Your task to perform on an android device: open app "Google Maps" Image 0: 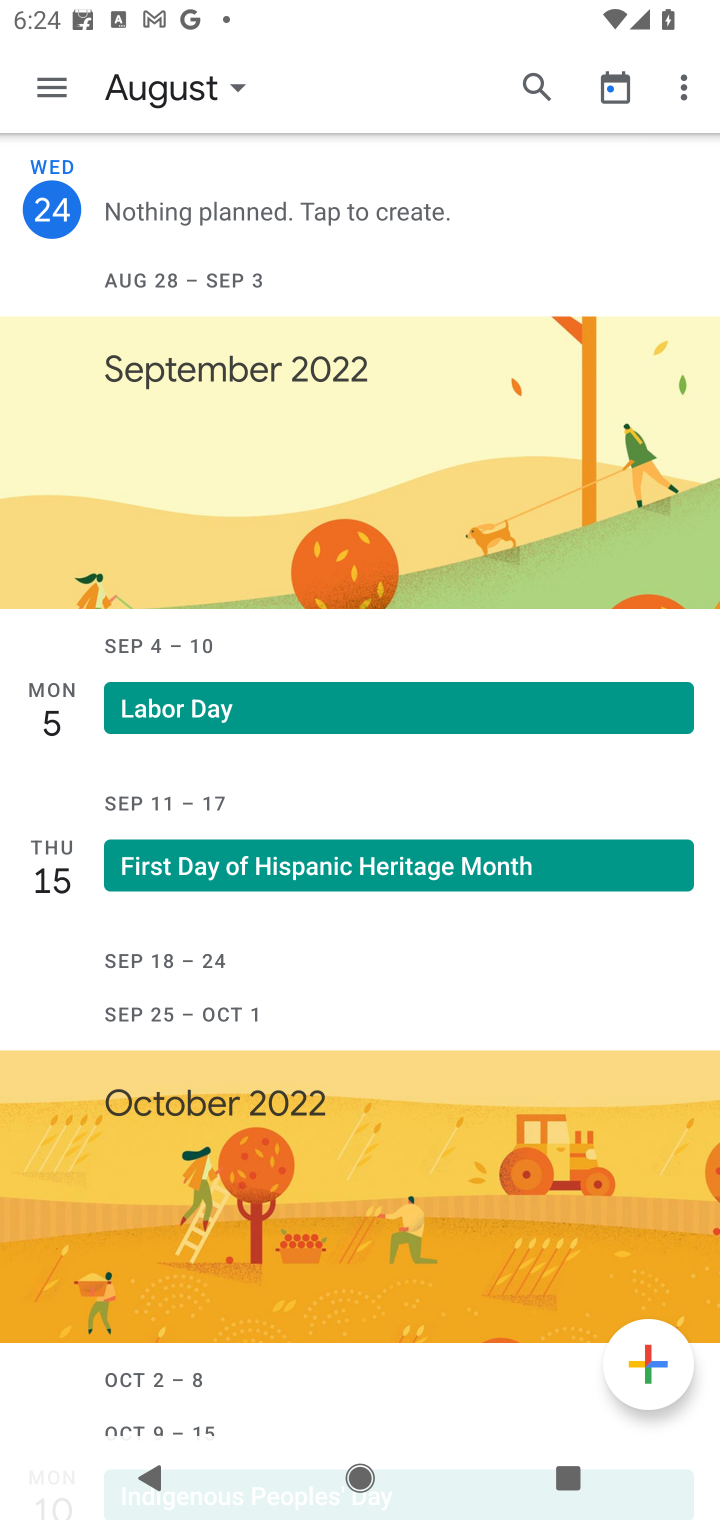
Step 0: press home button
Your task to perform on an android device: open app "Google Maps" Image 1: 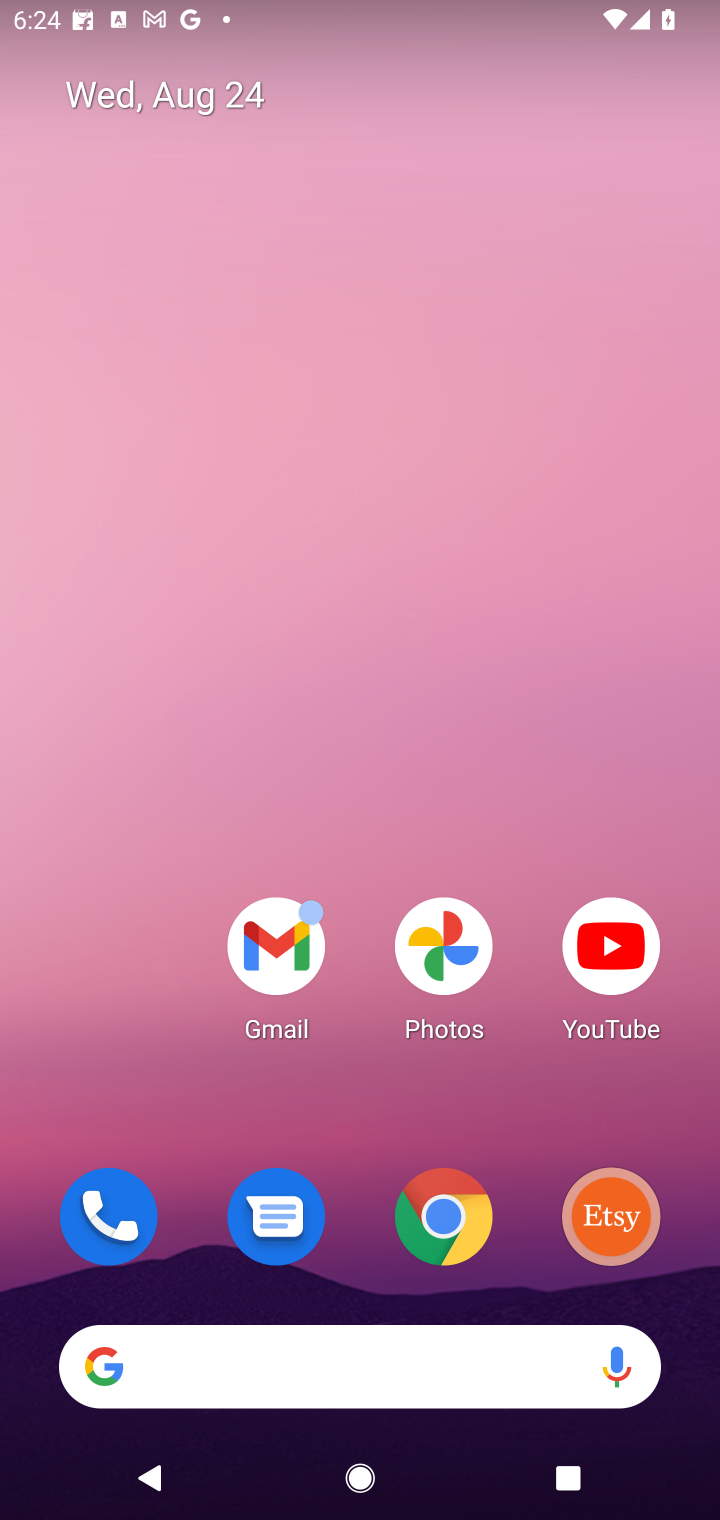
Step 1: drag from (378, 1100) to (406, 312)
Your task to perform on an android device: open app "Google Maps" Image 2: 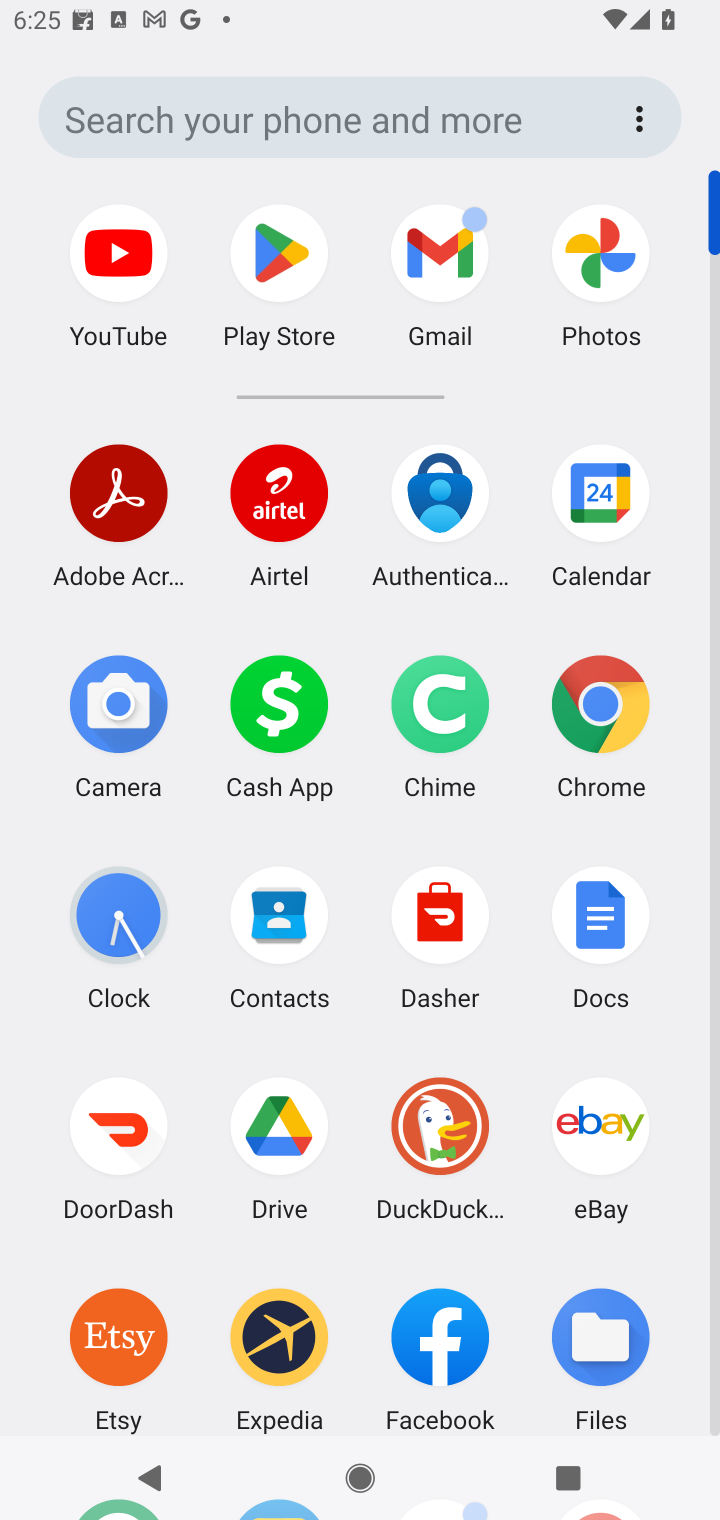
Step 2: click (299, 253)
Your task to perform on an android device: open app "Google Maps" Image 3: 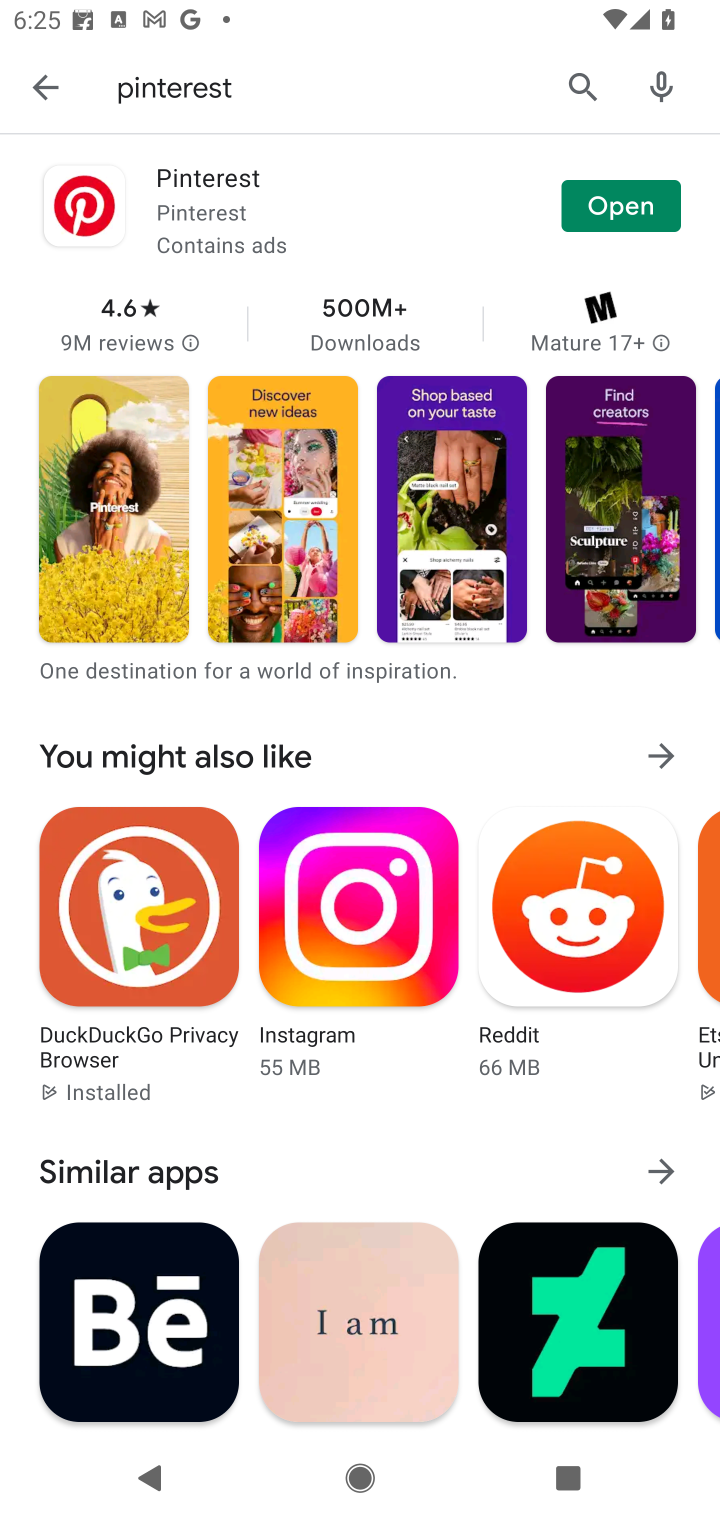
Step 3: click (563, 74)
Your task to perform on an android device: open app "Google Maps" Image 4: 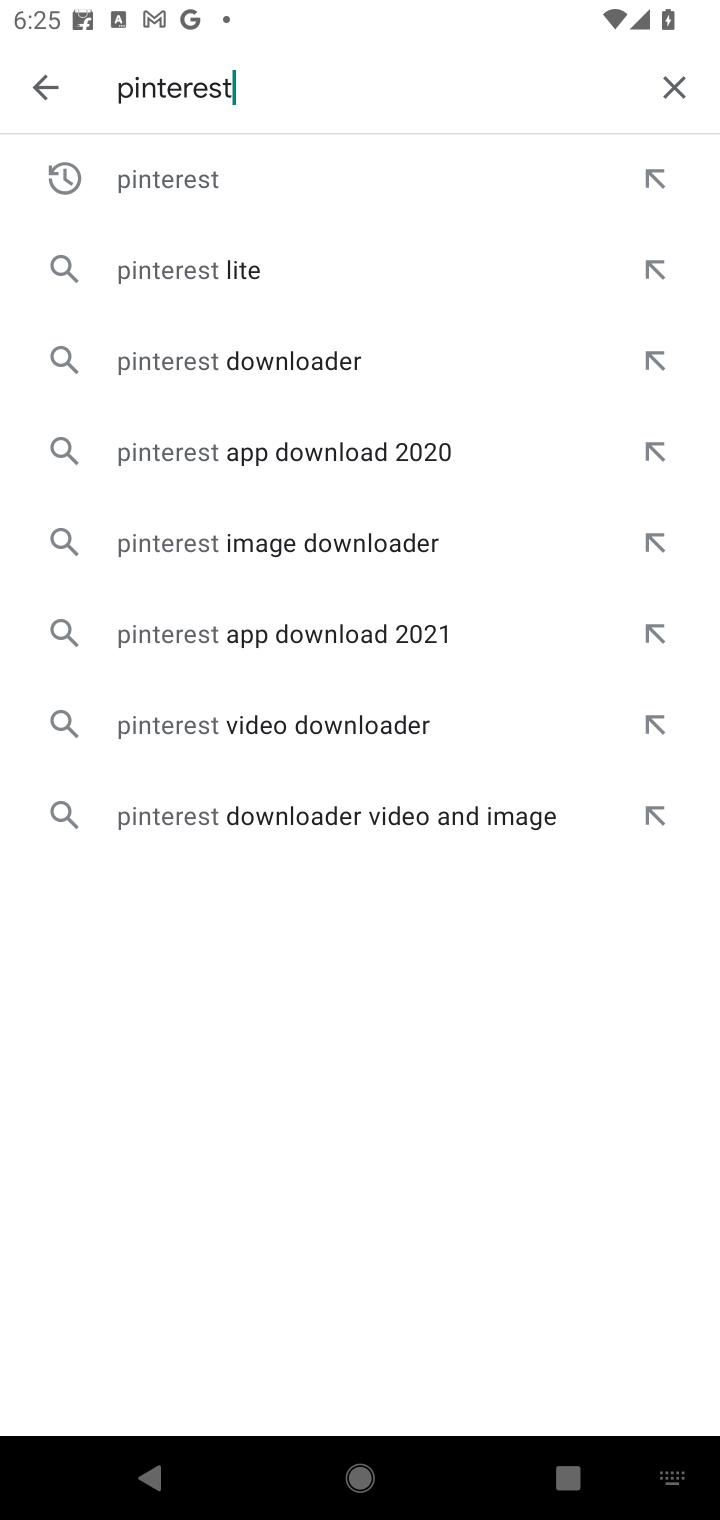
Step 4: click (663, 85)
Your task to perform on an android device: open app "Google Maps" Image 5: 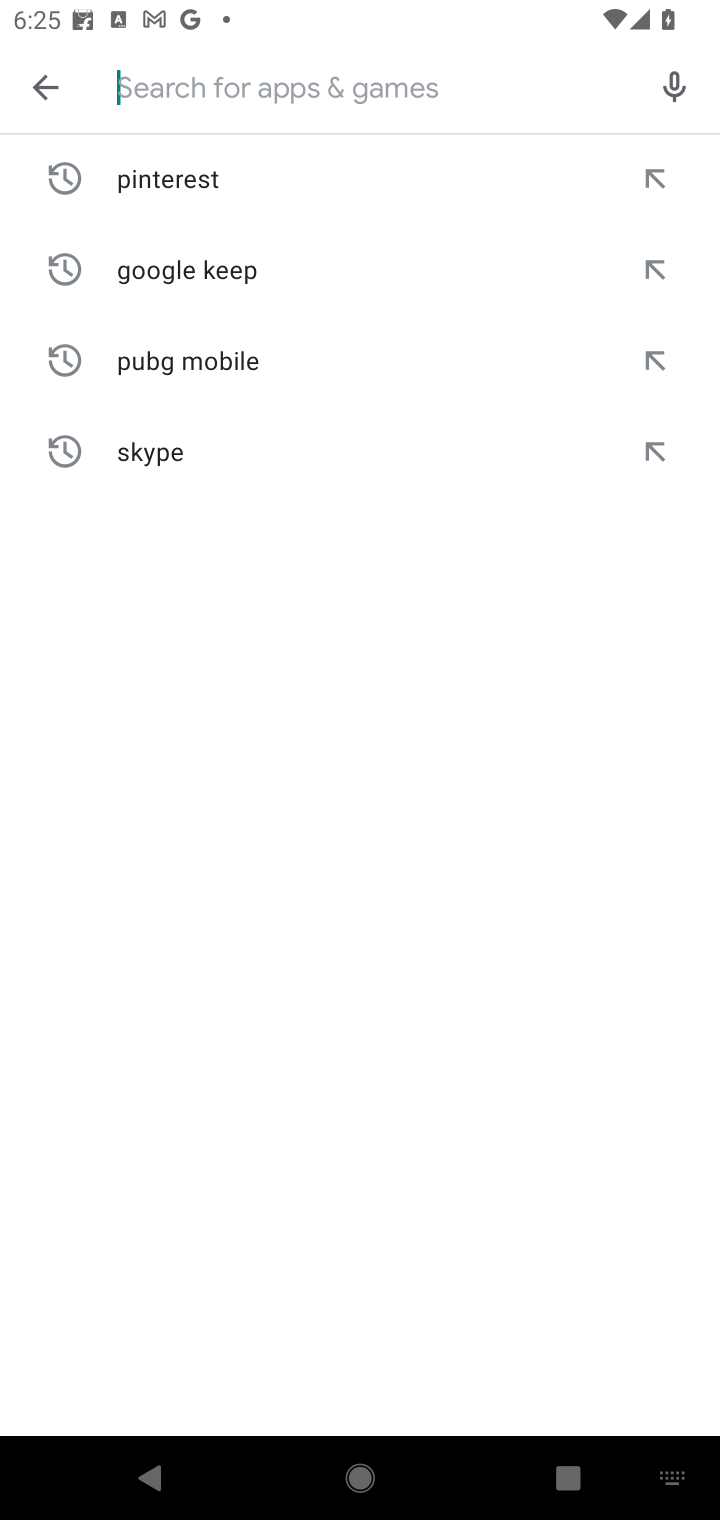
Step 5: type "Google Maps"
Your task to perform on an android device: open app "Google Maps" Image 6: 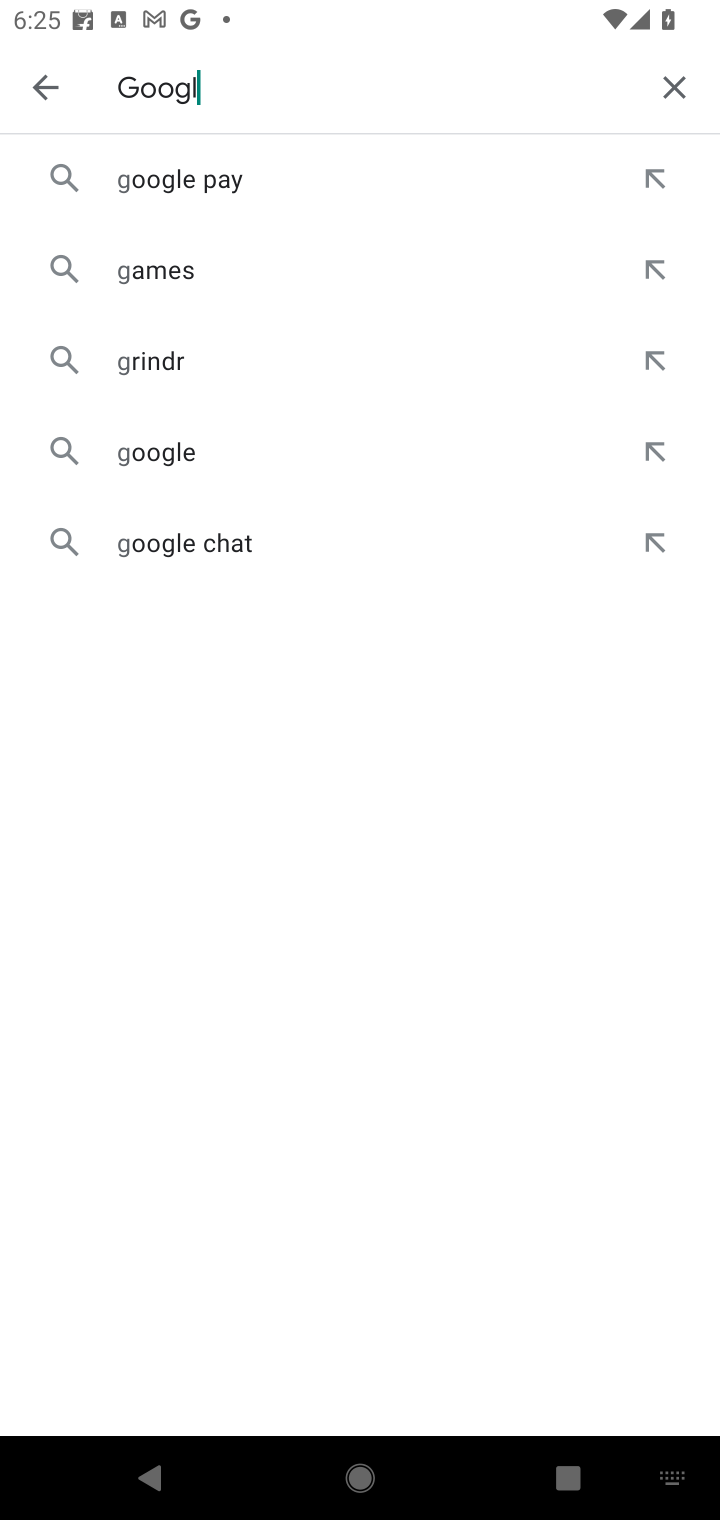
Step 6: type ""
Your task to perform on an android device: open app "Google Maps" Image 7: 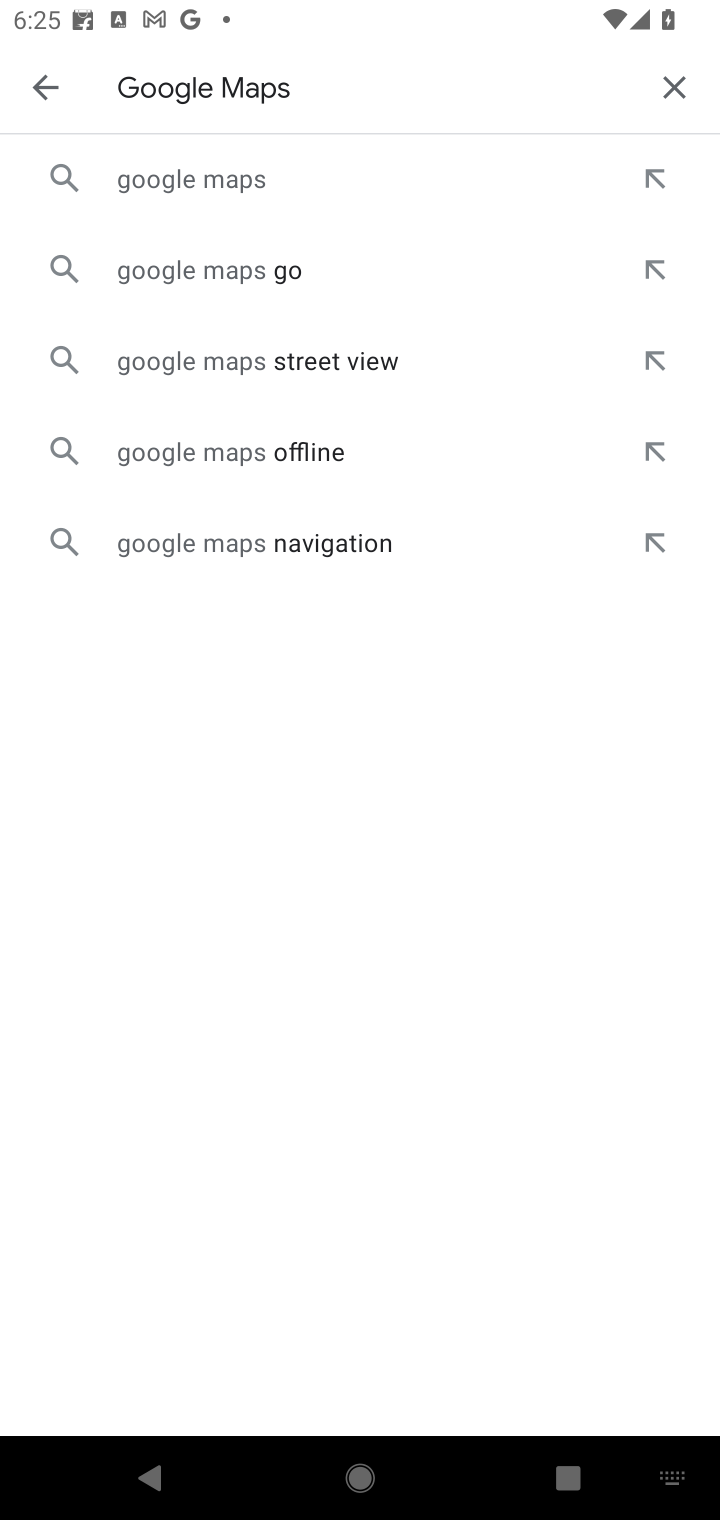
Step 7: click (247, 177)
Your task to perform on an android device: open app "Google Maps" Image 8: 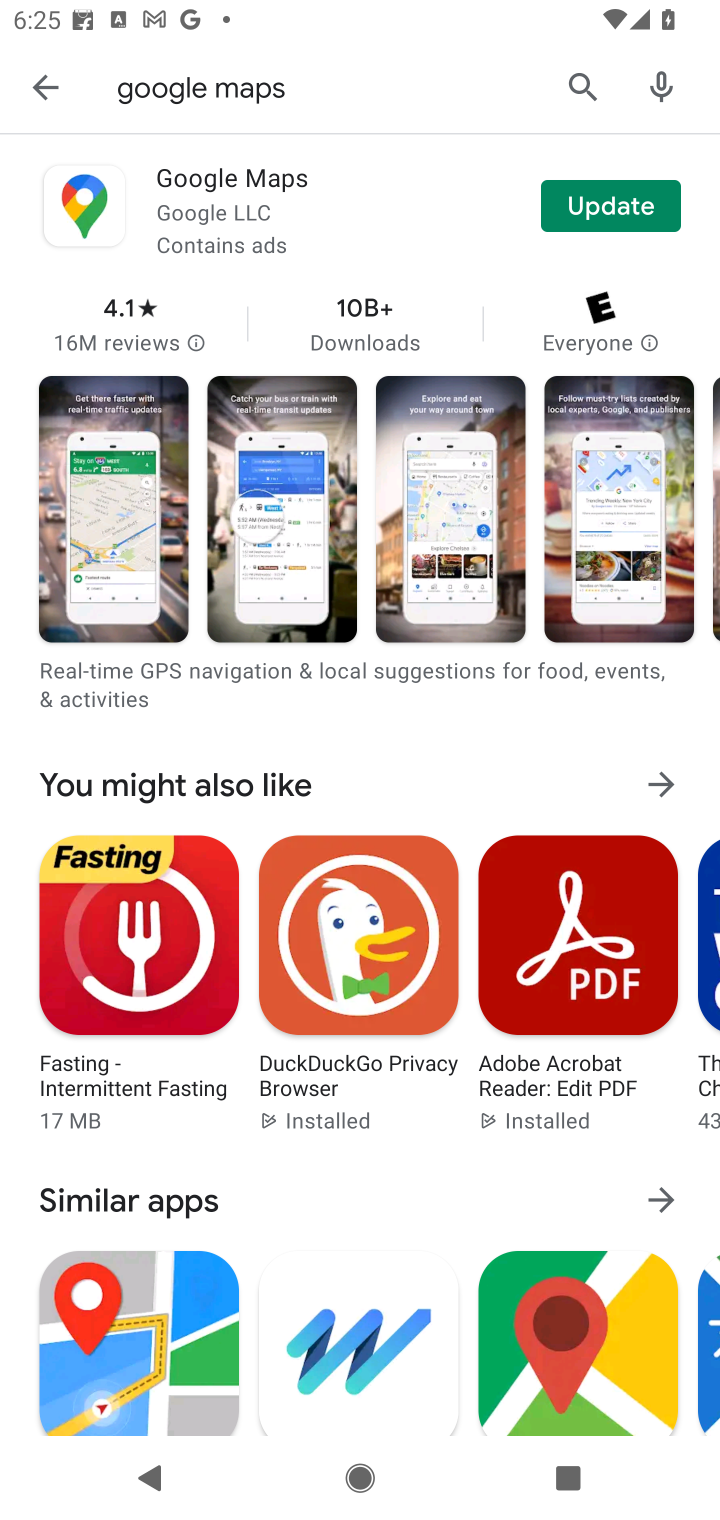
Step 8: click (415, 191)
Your task to perform on an android device: open app "Google Maps" Image 9: 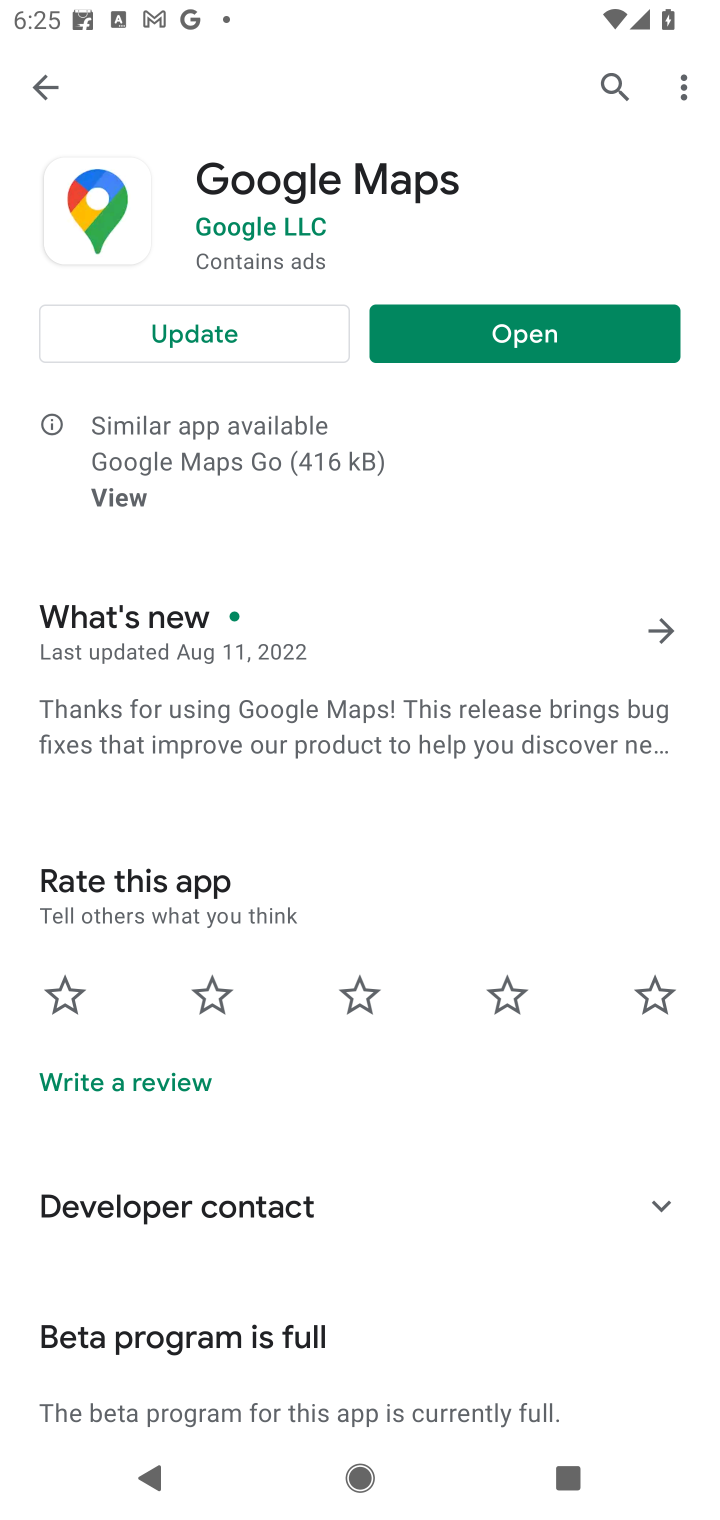
Step 9: click (472, 367)
Your task to perform on an android device: open app "Google Maps" Image 10: 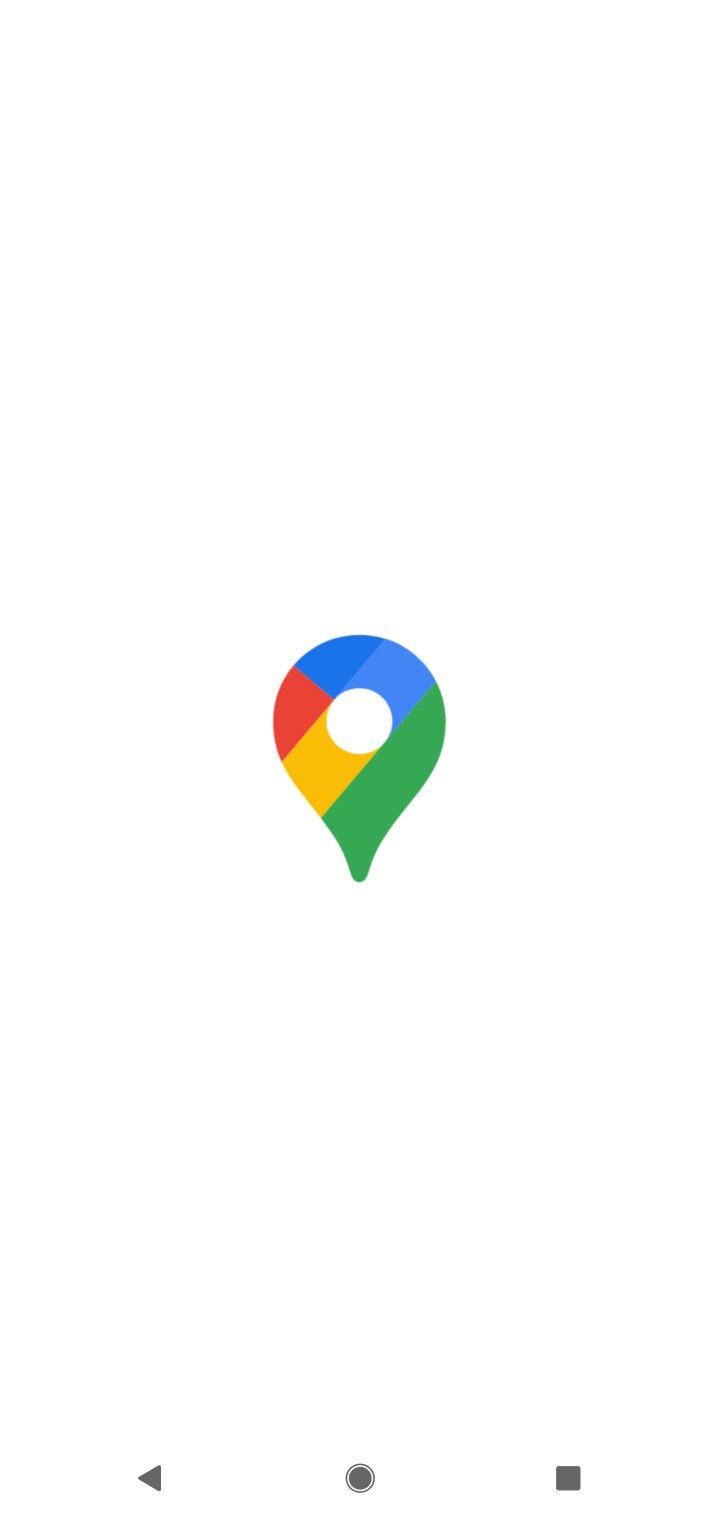
Step 10: task complete